Your task to perform on an android device: turn off priority inbox in the gmail app Image 0: 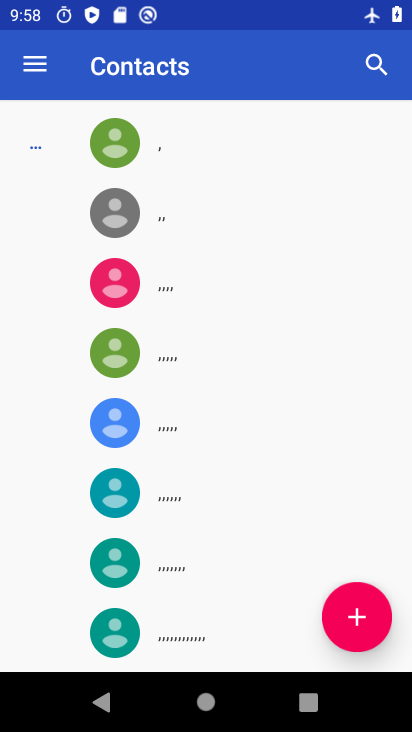
Step 0: press home button
Your task to perform on an android device: turn off priority inbox in the gmail app Image 1: 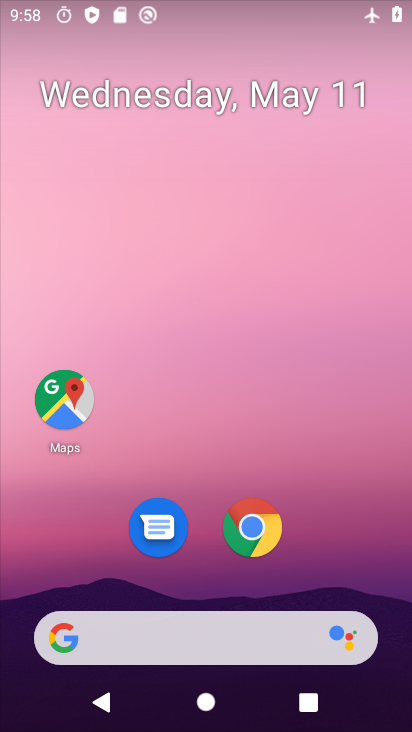
Step 1: drag from (268, 635) to (336, 193)
Your task to perform on an android device: turn off priority inbox in the gmail app Image 2: 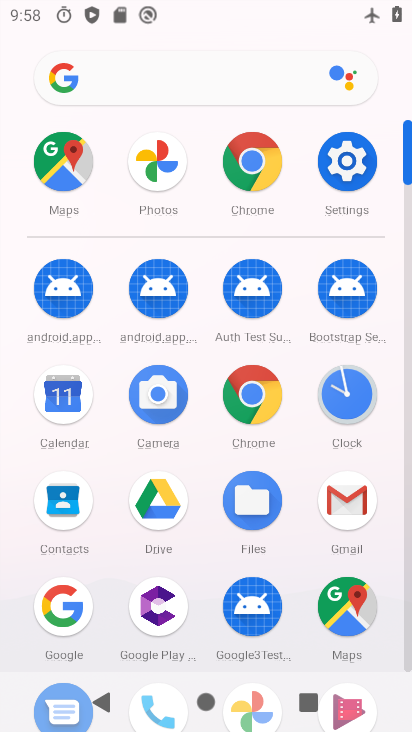
Step 2: click (356, 525)
Your task to perform on an android device: turn off priority inbox in the gmail app Image 3: 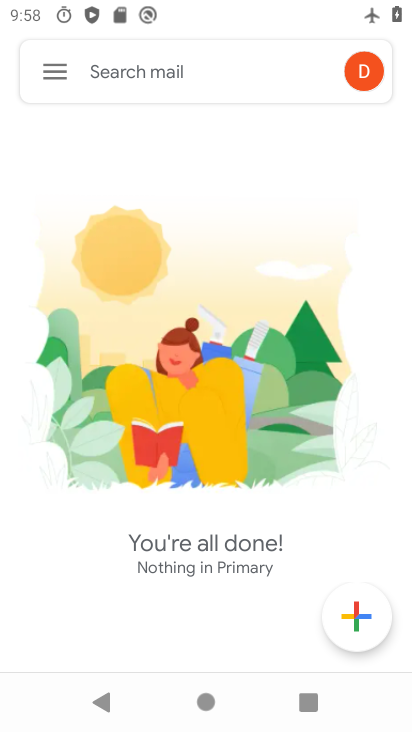
Step 3: click (60, 80)
Your task to perform on an android device: turn off priority inbox in the gmail app Image 4: 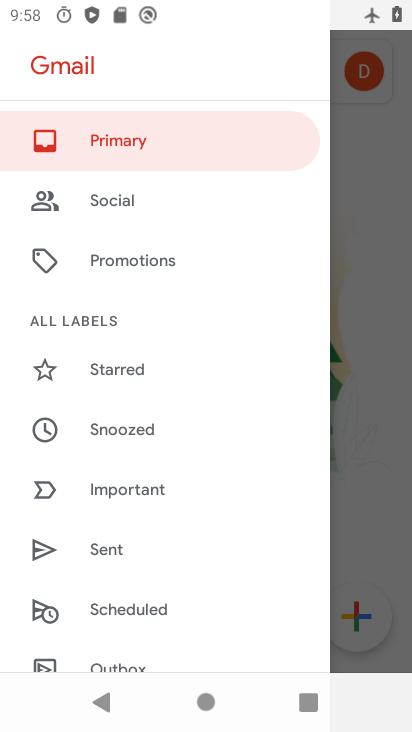
Step 4: click (351, 213)
Your task to perform on an android device: turn off priority inbox in the gmail app Image 5: 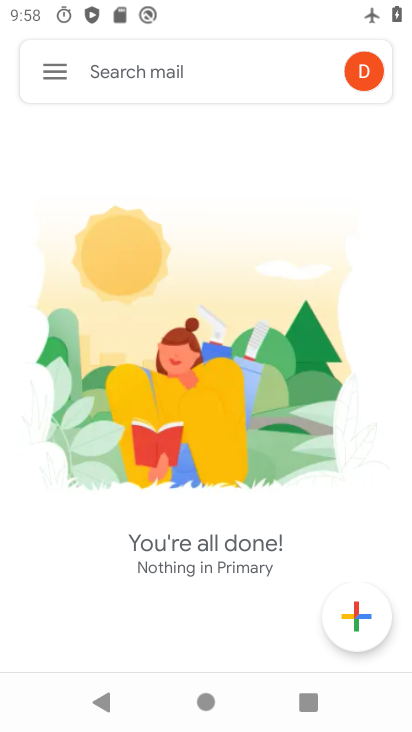
Step 5: click (351, 213)
Your task to perform on an android device: turn off priority inbox in the gmail app Image 6: 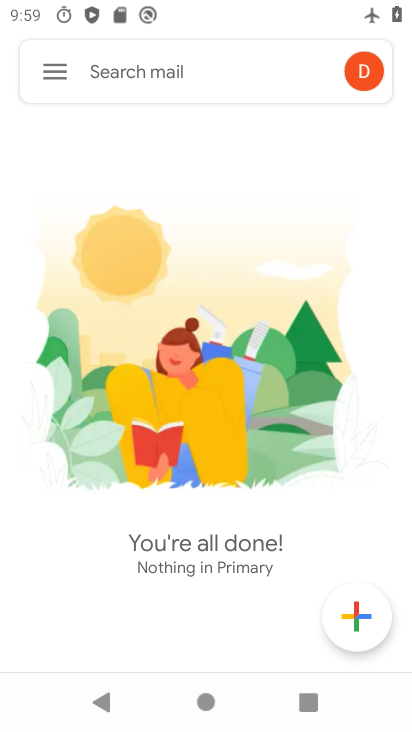
Step 6: click (70, 68)
Your task to perform on an android device: turn off priority inbox in the gmail app Image 7: 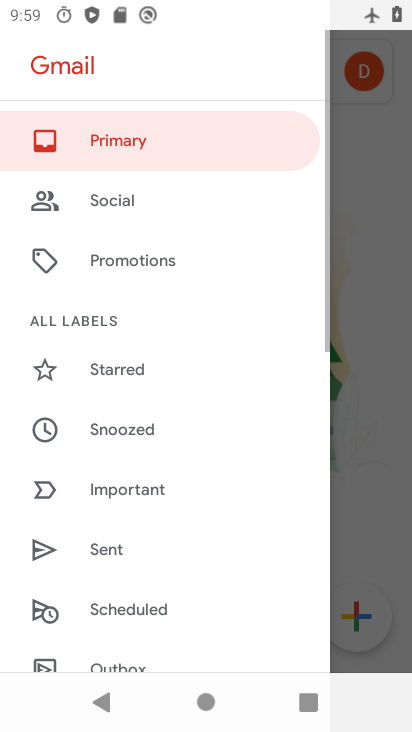
Step 7: drag from (151, 452) to (175, 217)
Your task to perform on an android device: turn off priority inbox in the gmail app Image 8: 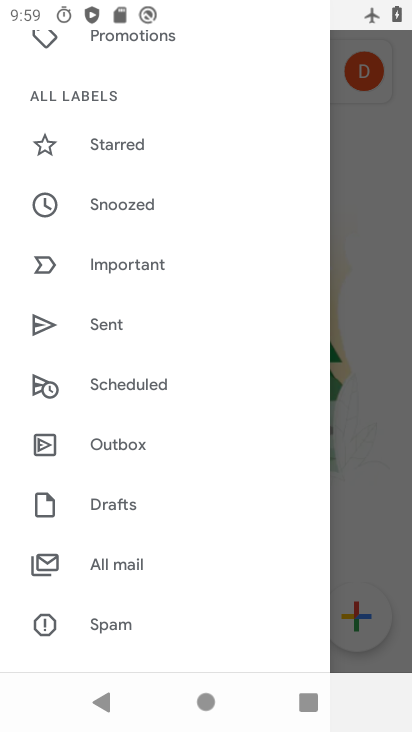
Step 8: drag from (117, 495) to (149, 369)
Your task to perform on an android device: turn off priority inbox in the gmail app Image 9: 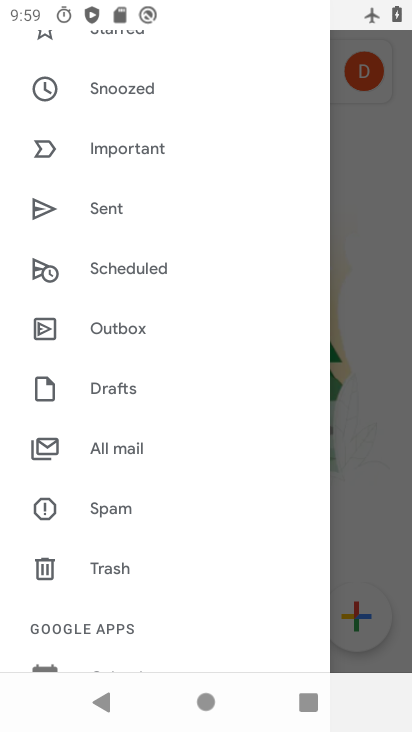
Step 9: drag from (119, 588) to (170, 345)
Your task to perform on an android device: turn off priority inbox in the gmail app Image 10: 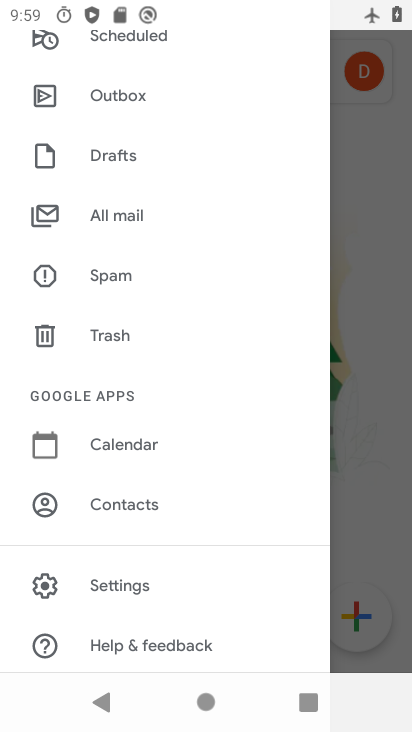
Step 10: drag from (90, 603) to (114, 509)
Your task to perform on an android device: turn off priority inbox in the gmail app Image 11: 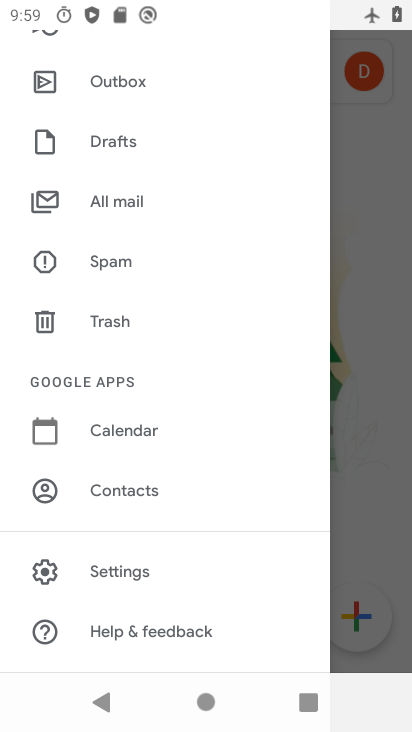
Step 11: click (104, 582)
Your task to perform on an android device: turn off priority inbox in the gmail app Image 12: 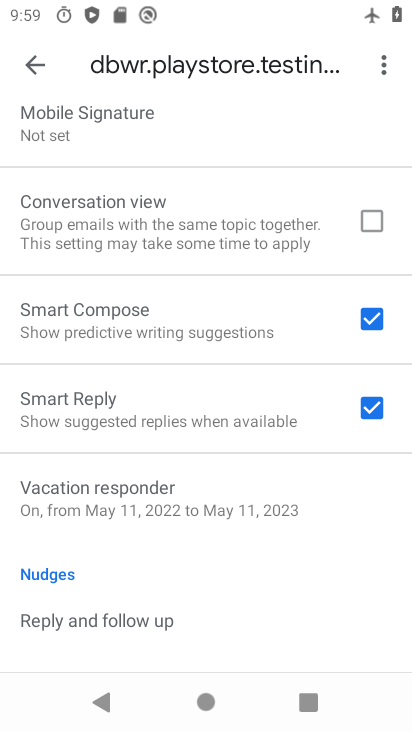
Step 12: drag from (241, 300) to (196, 535)
Your task to perform on an android device: turn off priority inbox in the gmail app Image 13: 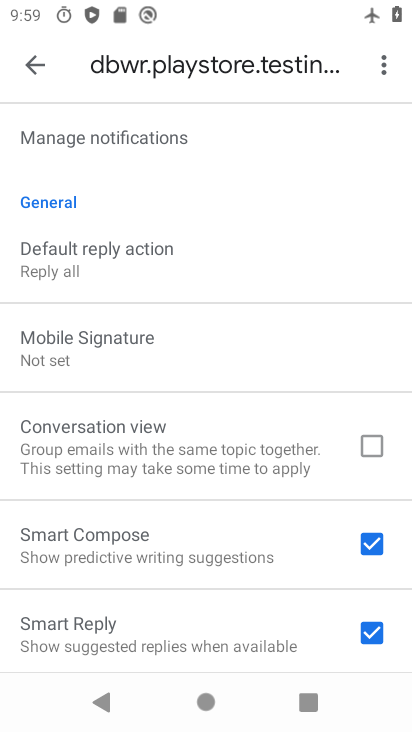
Step 13: drag from (271, 160) to (218, 434)
Your task to perform on an android device: turn off priority inbox in the gmail app Image 14: 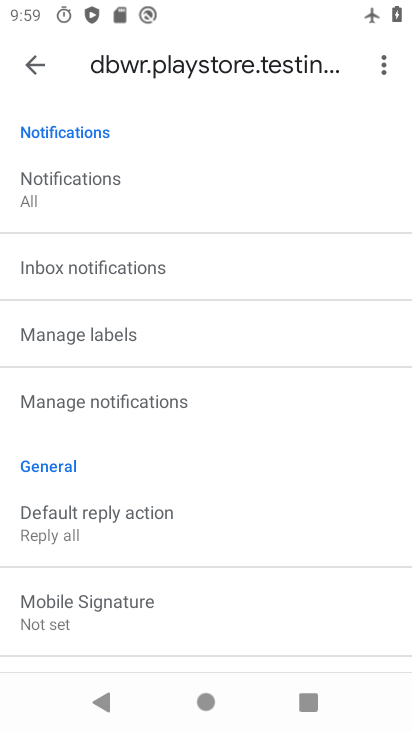
Step 14: drag from (232, 242) to (205, 564)
Your task to perform on an android device: turn off priority inbox in the gmail app Image 15: 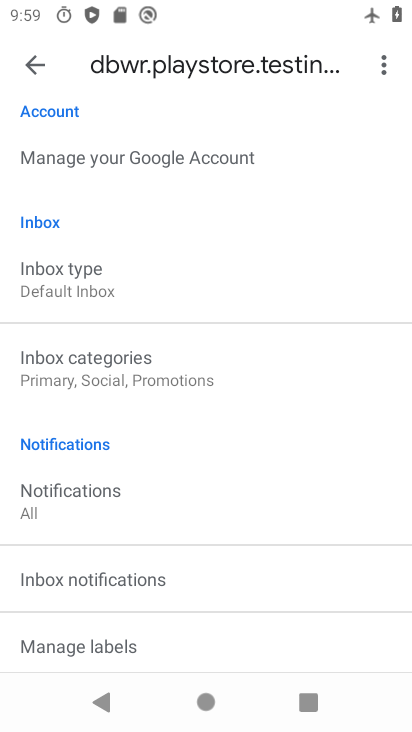
Step 15: click (129, 282)
Your task to perform on an android device: turn off priority inbox in the gmail app Image 16: 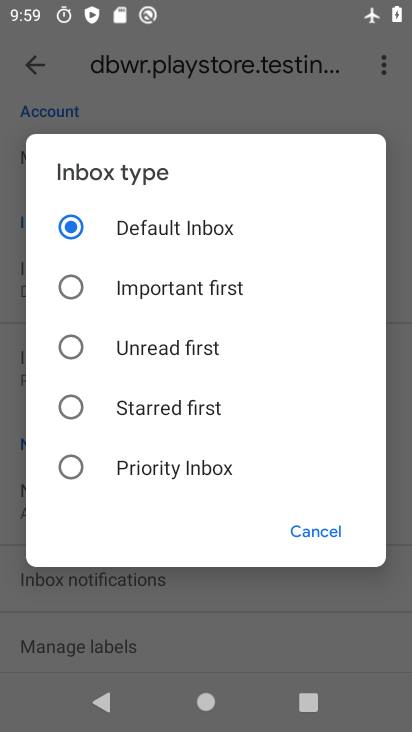
Step 16: task complete